Your task to perform on an android device: Search for rayovac triple a on bestbuy.com, select the first entry, and add it to the cart. Image 0: 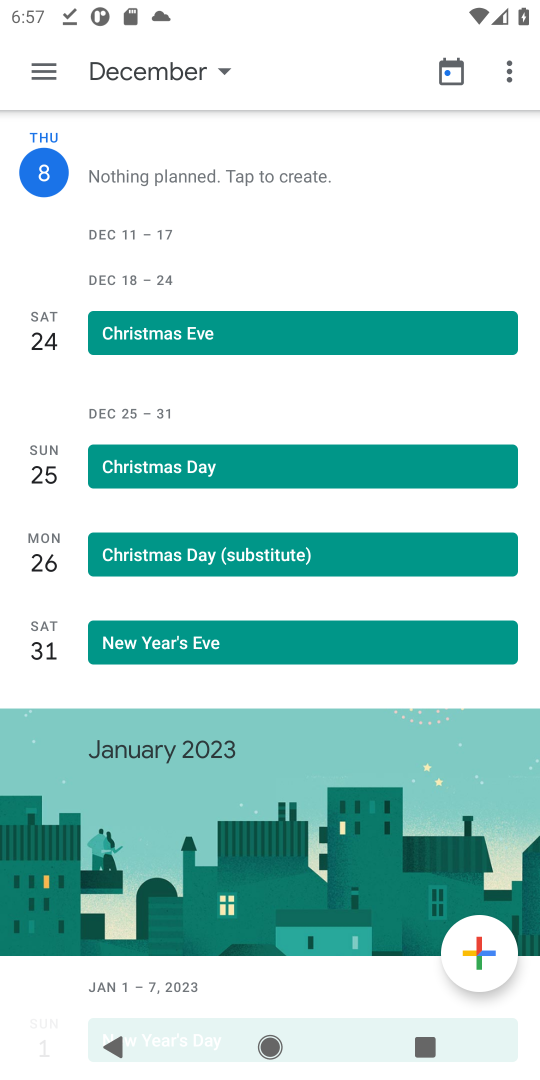
Step 0: press home button
Your task to perform on an android device: Search for rayovac triple a on bestbuy.com, select the first entry, and add it to the cart. Image 1: 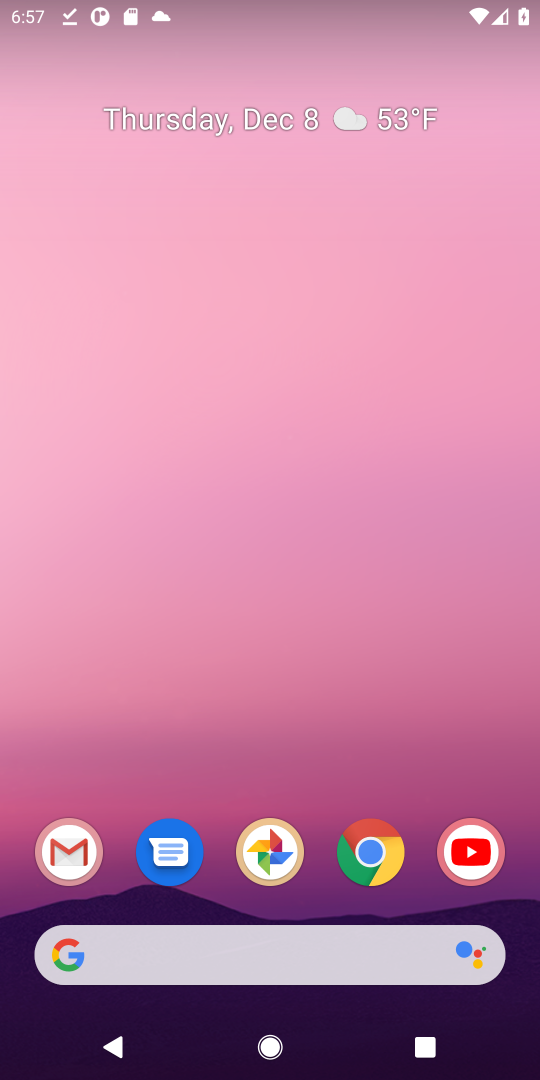
Step 1: click (308, 945)
Your task to perform on an android device: Search for rayovac triple a on bestbuy.com, select the first entry, and add it to the cart. Image 2: 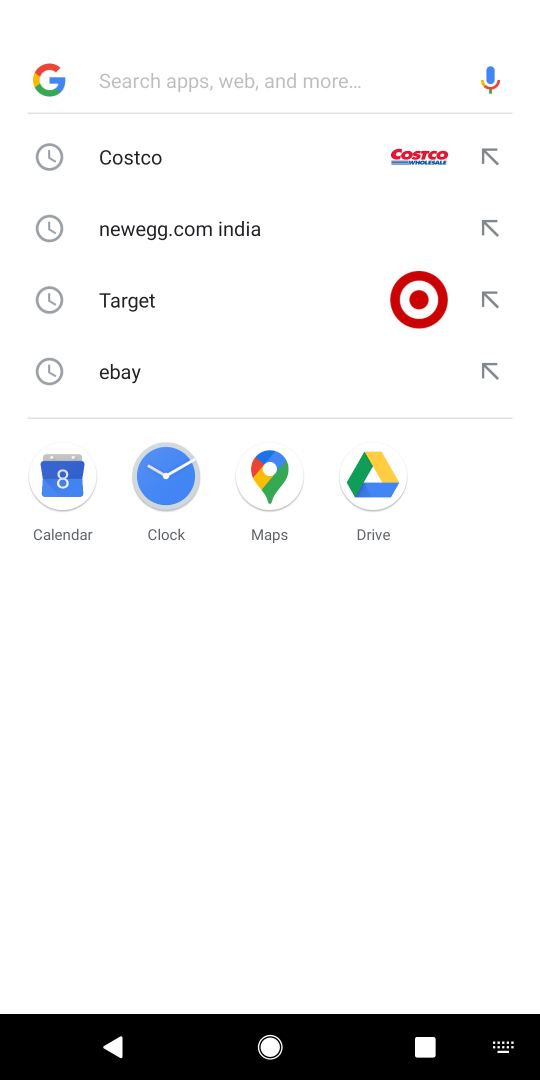
Step 2: type "rayovac"
Your task to perform on an android device: Search for rayovac triple a on bestbuy.com, select the first entry, and add it to the cart. Image 3: 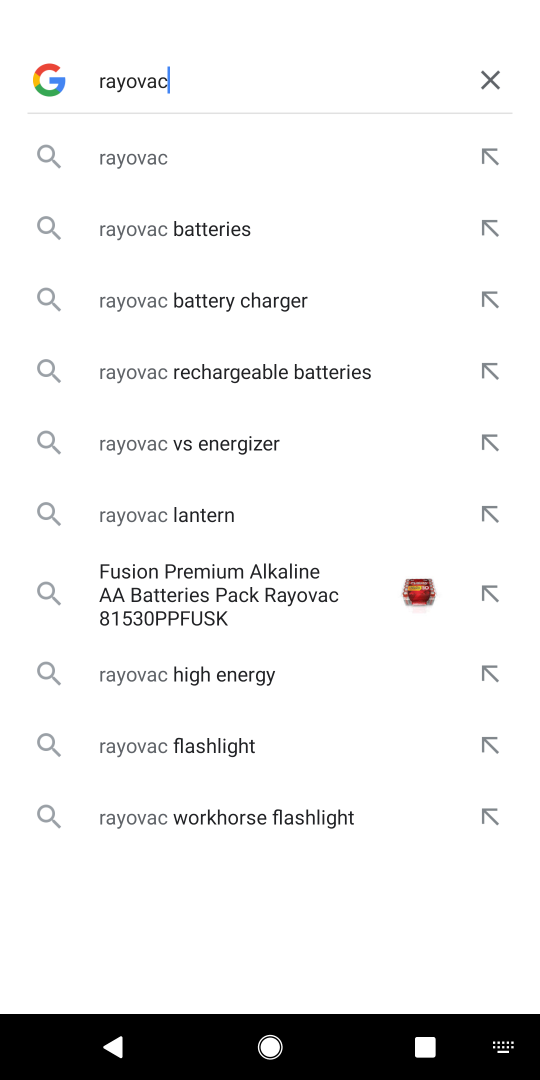
Step 3: type " trriple a"
Your task to perform on an android device: Search for rayovac triple a on bestbuy.com, select the first entry, and add it to the cart. Image 4: 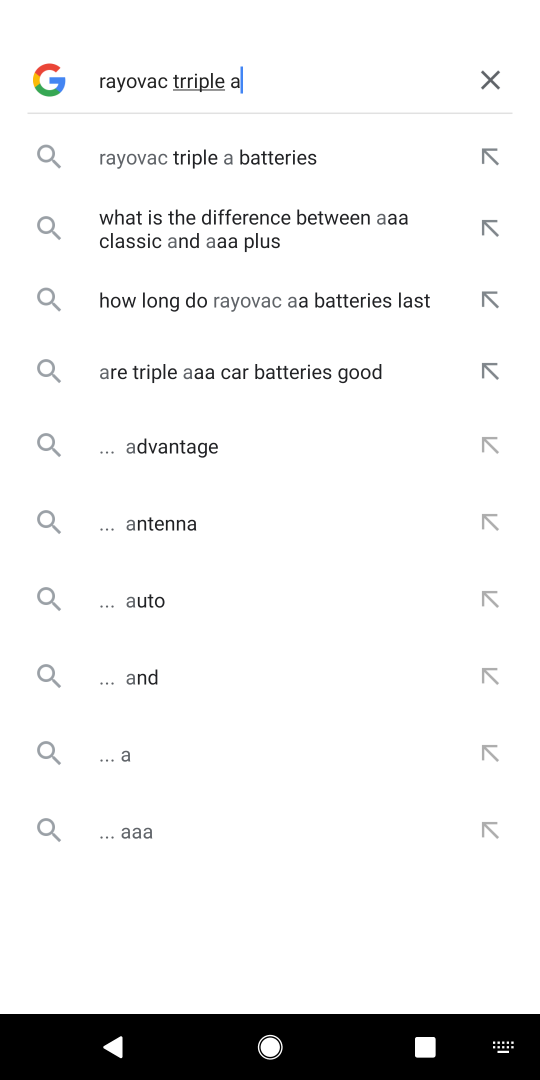
Step 4: click (332, 167)
Your task to perform on an android device: Search for rayovac triple a on bestbuy.com, select the first entry, and add it to the cart. Image 5: 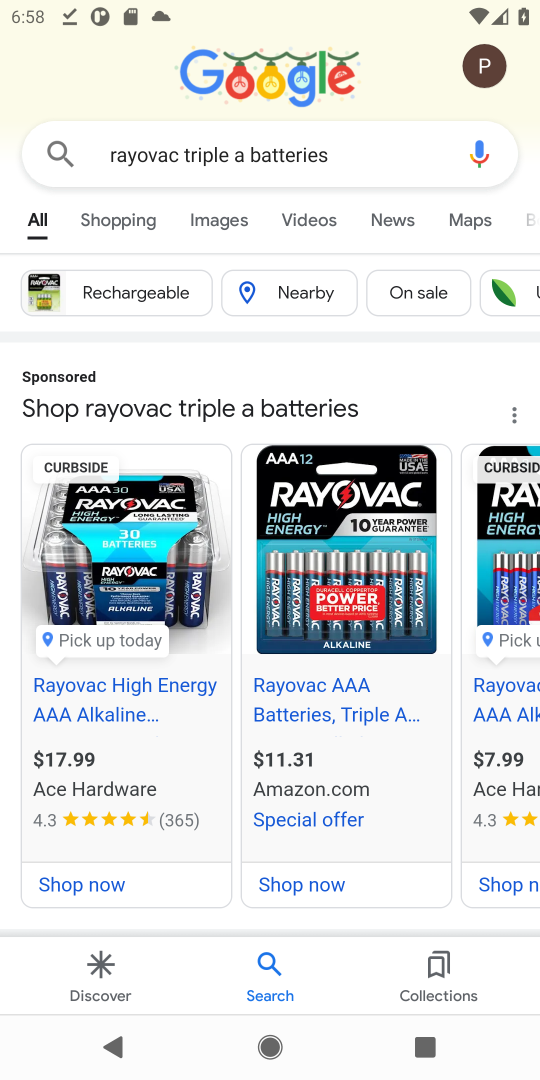
Step 5: task complete